Your task to perform on an android device: turn off picture-in-picture Image 0: 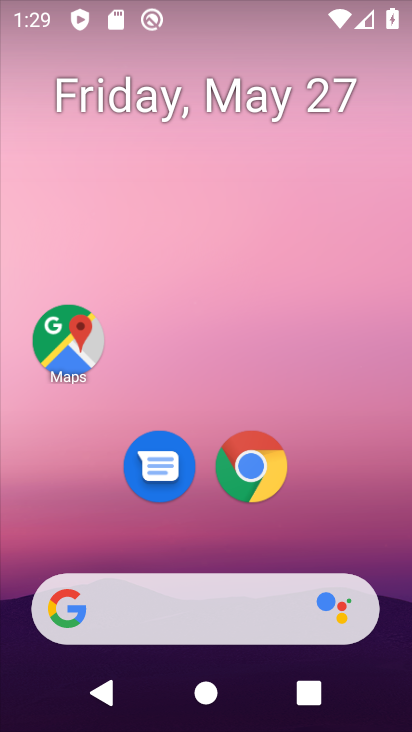
Step 0: click (243, 444)
Your task to perform on an android device: turn off picture-in-picture Image 1: 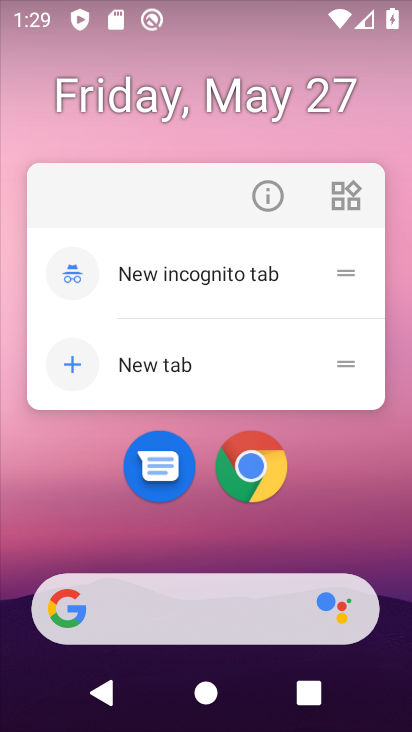
Step 1: click (256, 181)
Your task to perform on an android device: turn off picture-in-picture Image 2: 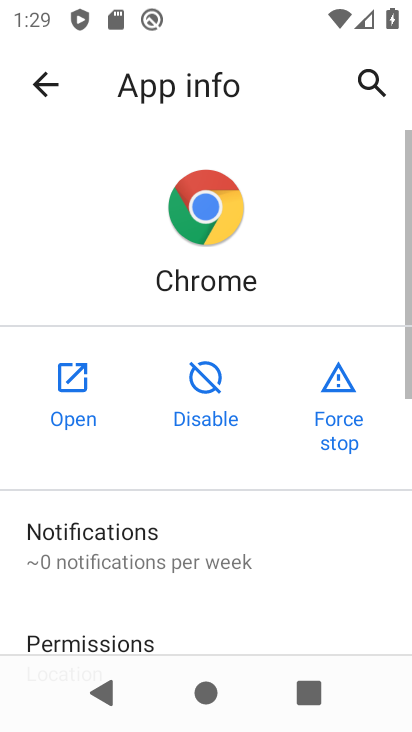
Step 2: drag from (217, 513) to (179, 144)
Your task to perform on an android device: turn off picture-in-picture Image 3: 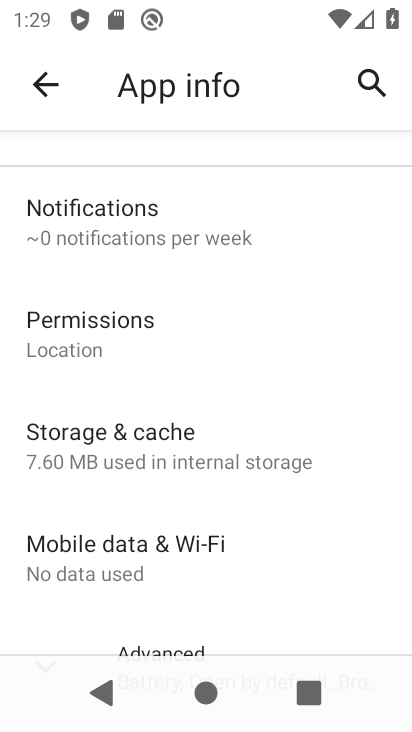
Step 3: click (104, 638)
Your task to perform on an android device: turn off picture-in-picture Image 4: 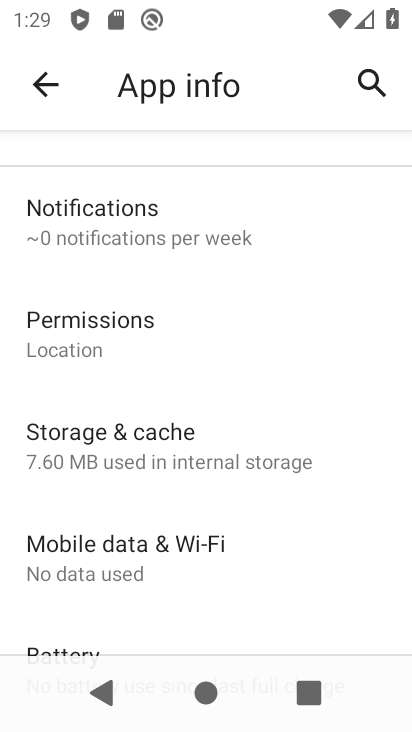
Step 4: drag from (198, 536) to (166, 107)
Your task to perform on an android device: turn off picture-in-picture Image 5: 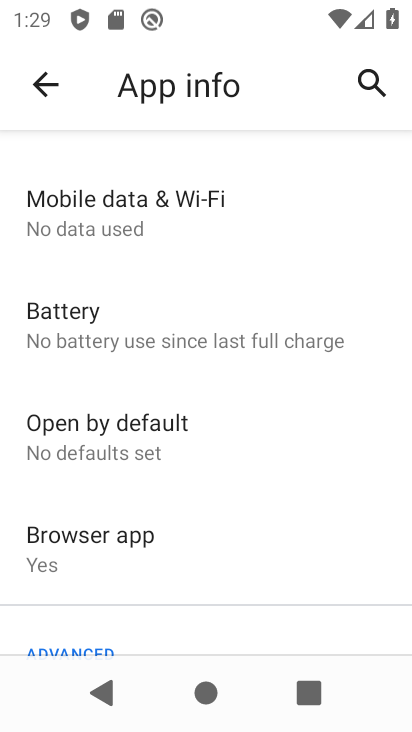
Step 5: drag from (291, 429) to (207, 38)
Your task to perform on an android device: turn off picture-in-picture Image 6: 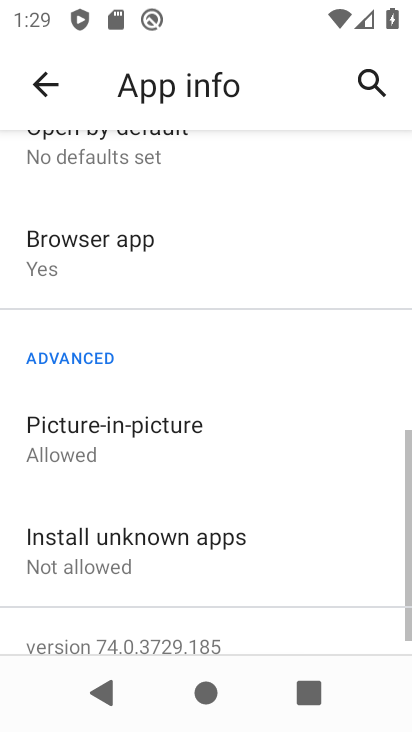
Step 6: click (172, 394)
Your task to perform on an android device: turn off picture-in-picture Image 7: 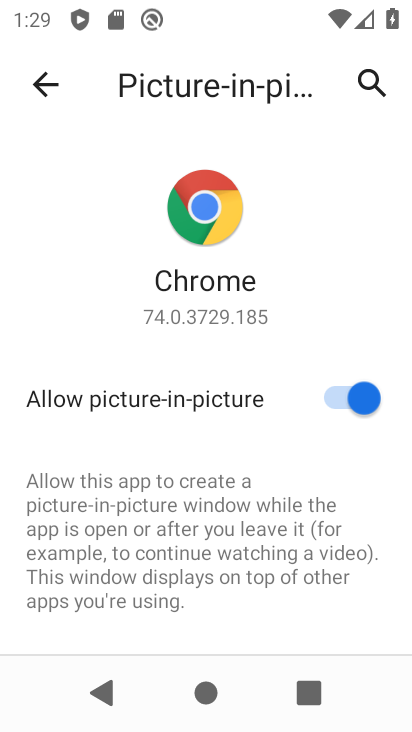
Step 7: click (339, 394)
Your task to perform on an android device: turn off picture-in-picture Image 8: 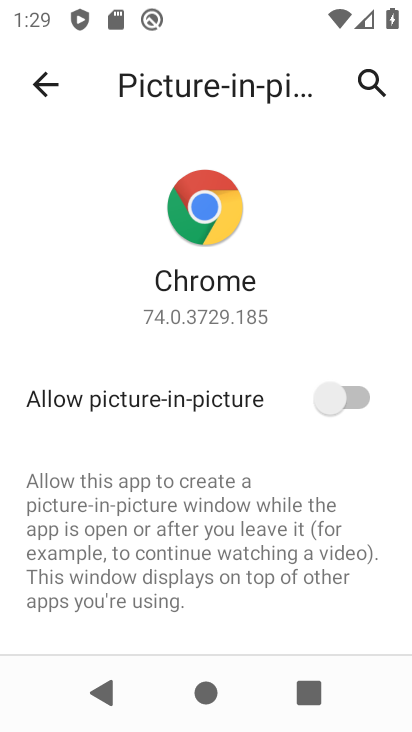
Step 8: task complete